Your task to perform on an android device: change the clock display to show seconds Image 0: 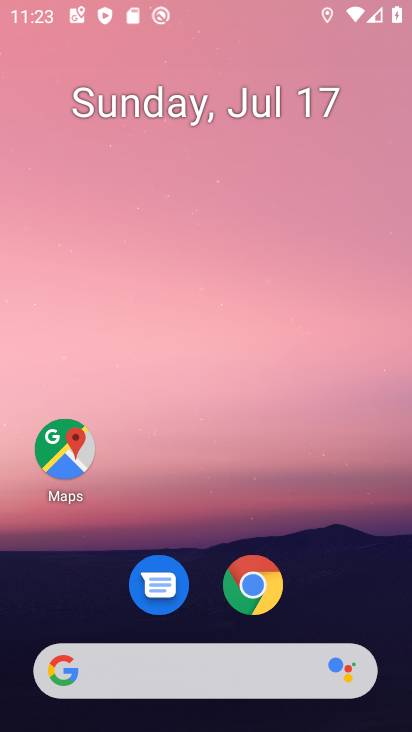
Step 0: drag from (339, 469) to (365, 63)
Your task to perform on an android device: change the clock display to show seconds Image 1: 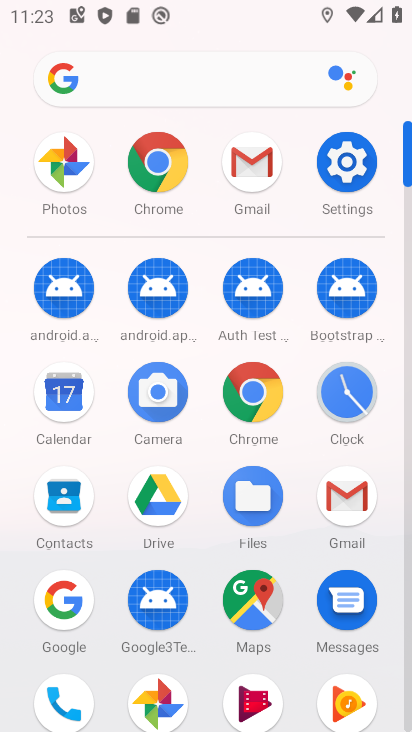
Step 1: click (349, 134)
Your task to perform on an android device: change the clock display to show seconds Image 2: 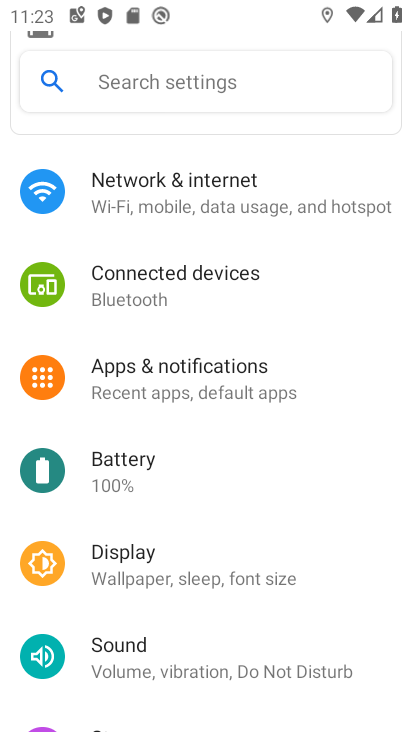
Step 2: click (236, 186)
Your task to perform on an android device: change the clock display to show seconds Image 3: 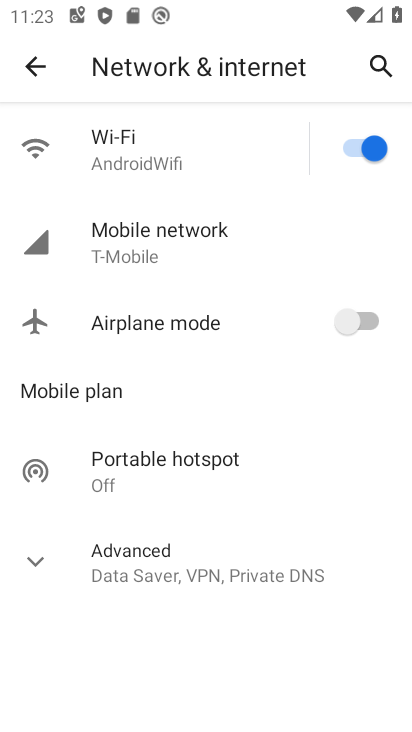
Step 3: click (116, 146)
Your task to perform on an android device: change the clock display to show seconds Image 4: 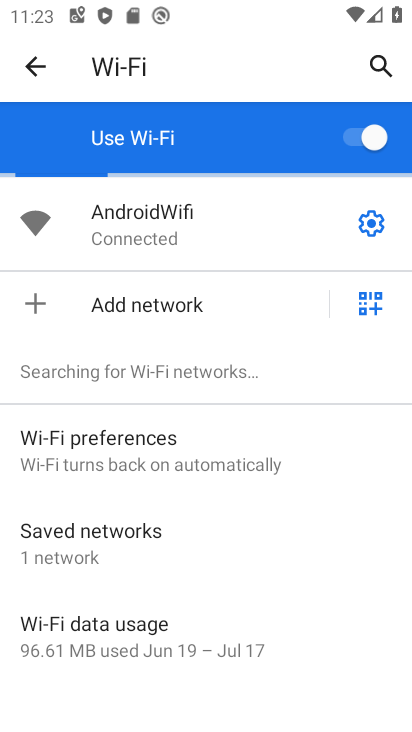
Step 4: task complete